Your task to perform on an android device: empty trash in the gmail app Image 0: 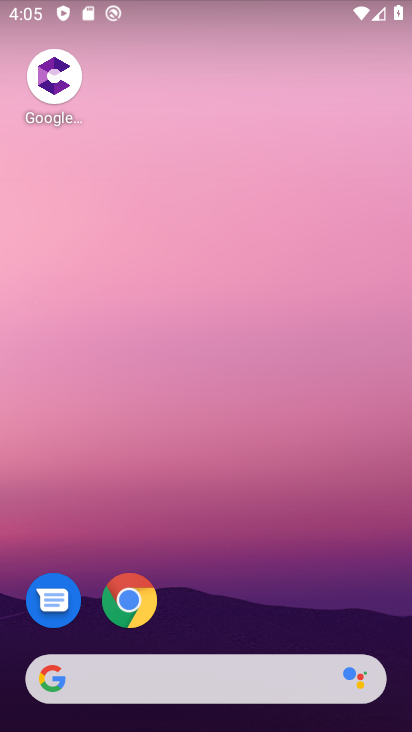
Step 0: press home button
Your task to perform on an android device: empty trash in the gmail app Image 1: 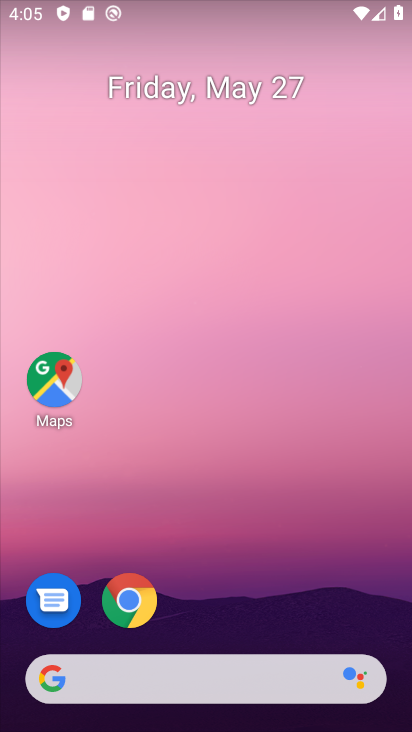
Step 1: drag from (183, 702) to (221, 160)
Your task to perform on an android device: empty trash in the gmail app Image 2: 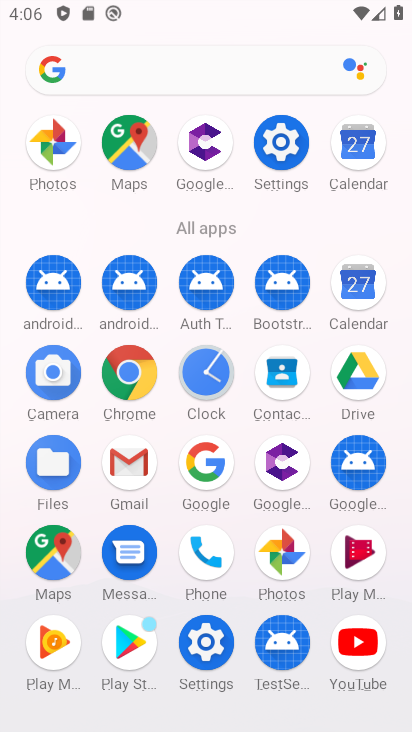
Step 2: click (116, 463)
Your task to perform on an android device: empty trash in the gmail app Image 3: 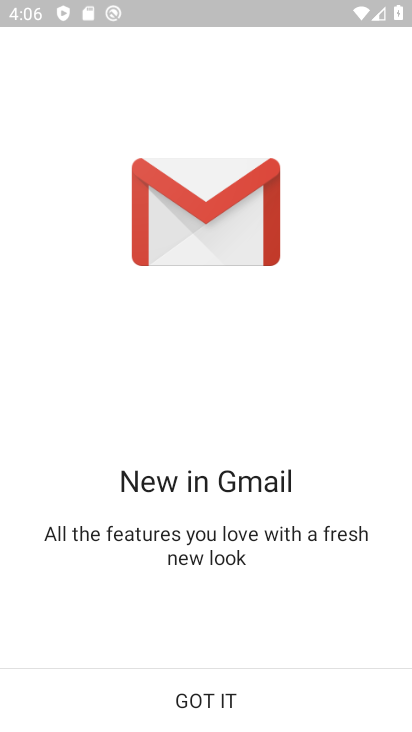
Step 3: click (252, 730)
Your task to perform on an android device: empty trash in the gmail app Image 4: 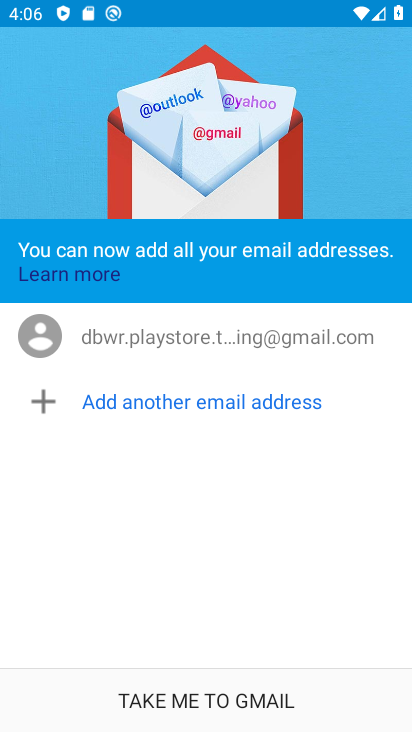
Step 4: click (209, 697)
Your task to perform on an android device: empty trash in the gmail app Image 5: 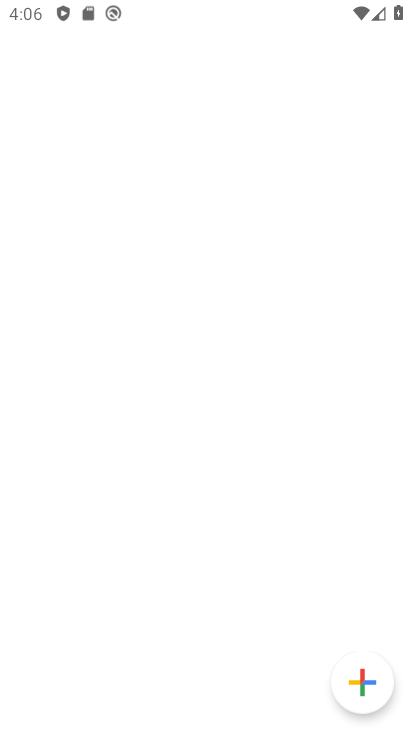
Step 5: click (198, 685)
Your task to perform on an android device: empty trash in the gmail app Image 6: 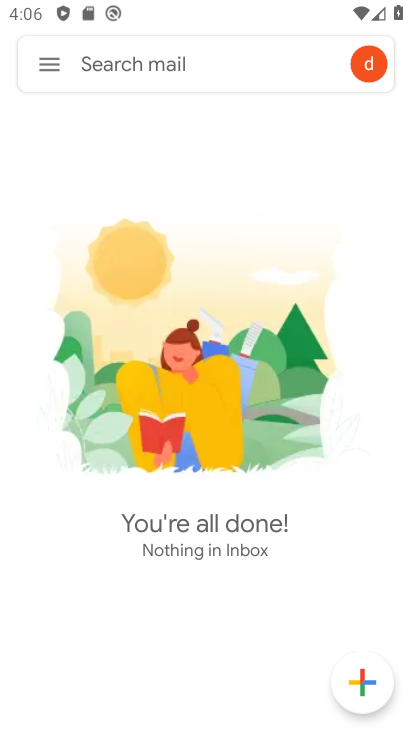
Step 6: click (49, 65)
Your task to perform on an android device: empty trash in the gmail app Image 7: 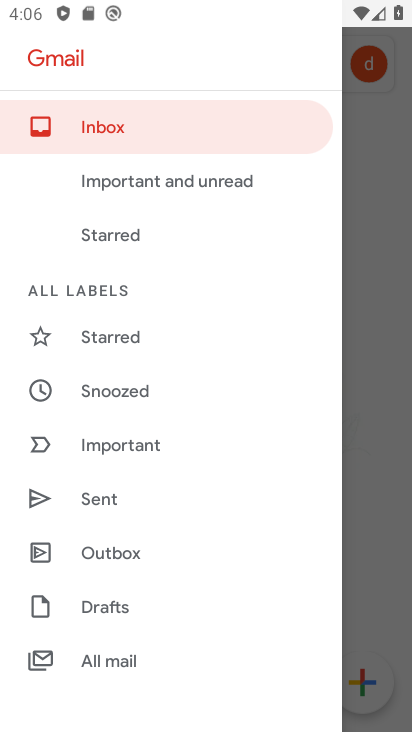
Step 7: drag from (165, 601) to (202, 312)
Your task to perform on an android device: empty trash in the gmail app Image 8: 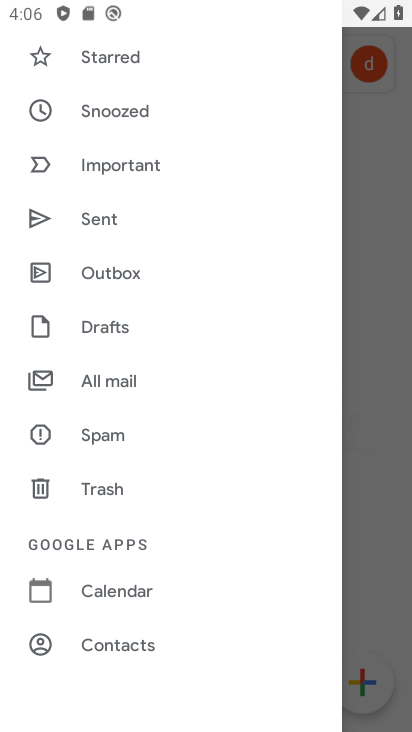
Step 8: click (91, 494)
Your task to perform on an android device: empty trash in the gmail app Image 9: 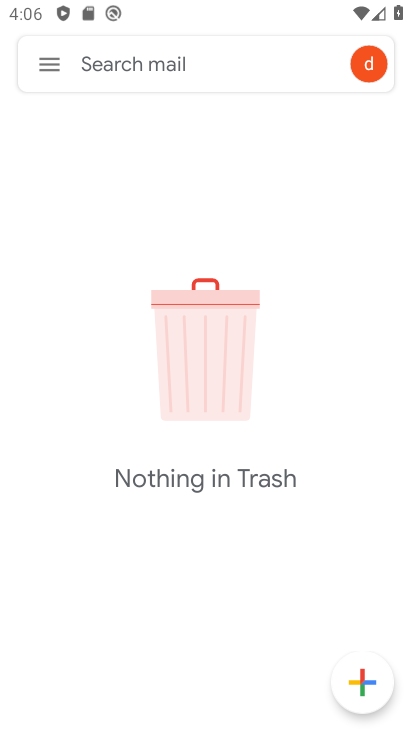
Step 9: click (93, 494)
Your task to perform on an android device: empty trash in the gmail app Image 10: 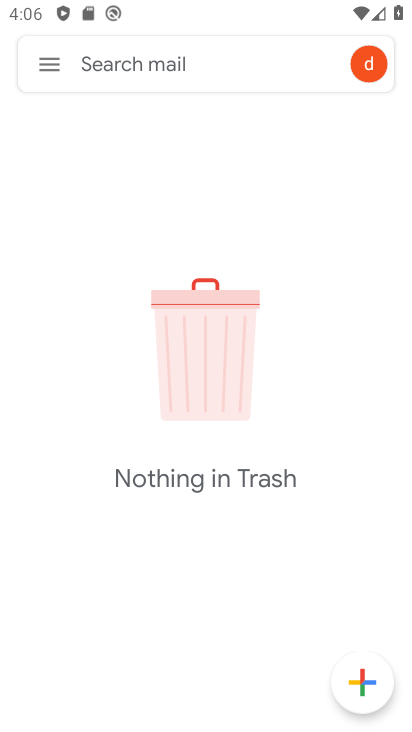
Step 10: task complete